Your task to perform on an android device: change keyboard looks Image 0: 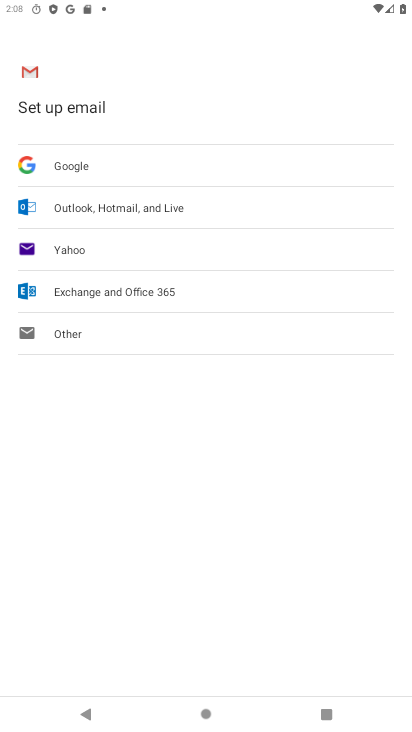
Step 0: drag from (199, 619) to (251, 250)
Your task to perform on an android device: change keyboard looks Image 1: 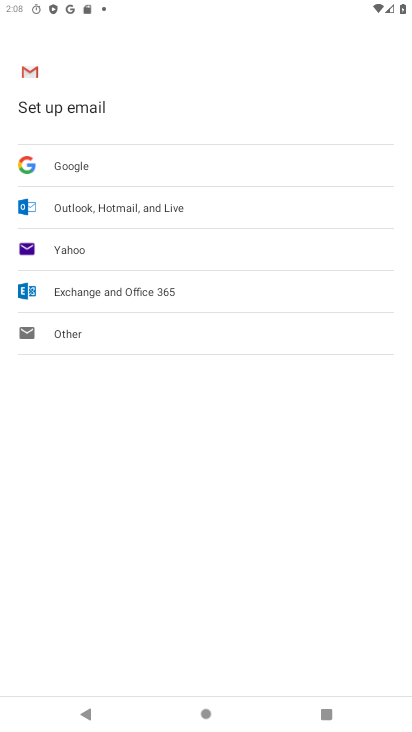
Step 1: drag from (117, 529) to (195, 306)
Your task to perform on an android device: change keyboard looks Image 2: 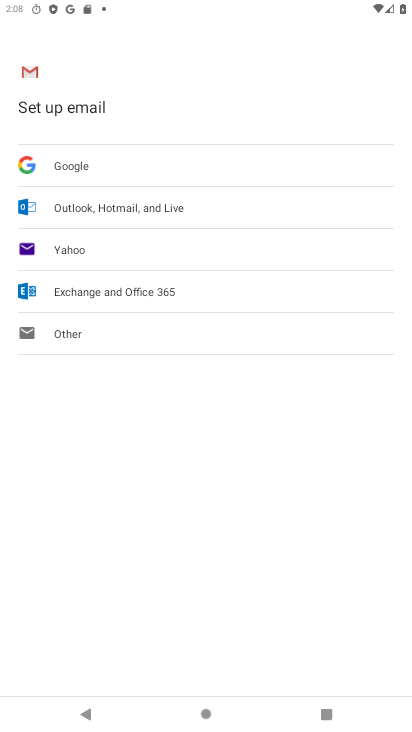
Step 2: press home button
Your task to perform on an android device: change keyboard looks Image 3: 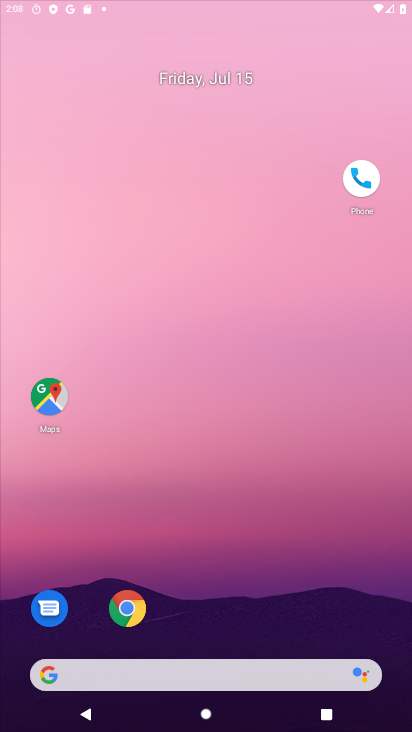
Step 3: drag from (183, 603) to (276, 64)
Your task to perform on an android device: change keyboard looks Image 4: 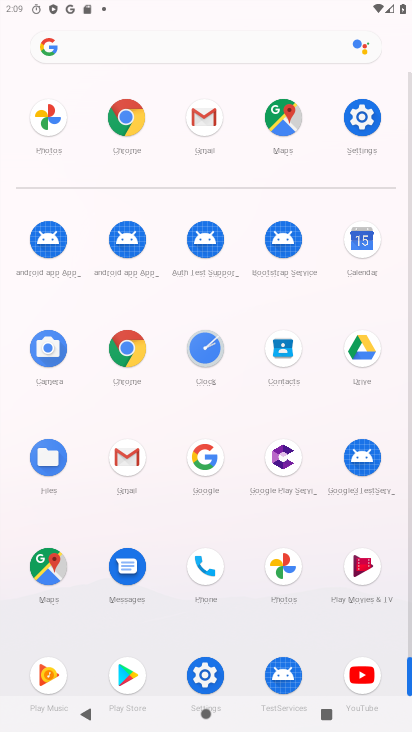
Step 4: click (216, 682)
Your task to perform on an android device: change keyboard looks Image 5: 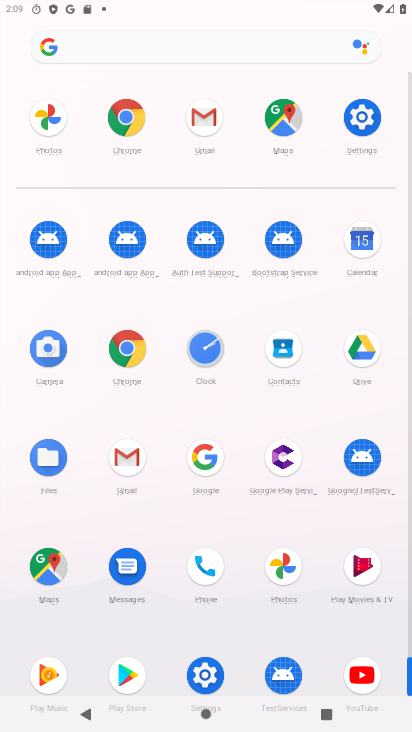
Step 5: click (216, 682)
Your task to perform on an android device: change keyboard looks Image 6: 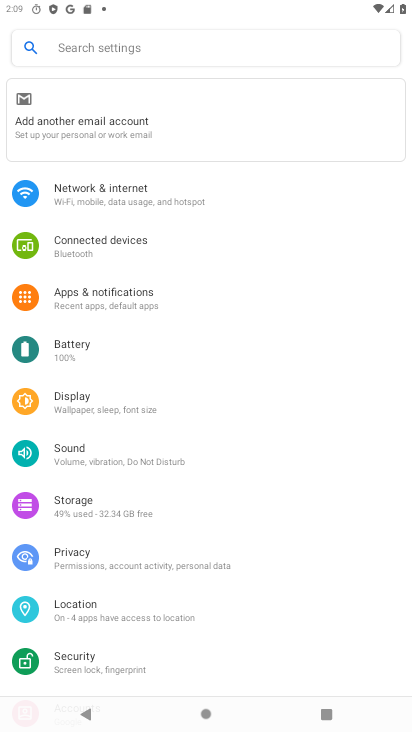
Step 6: drag from (221, 589) to (237, 158)
Your task to perform on an android device: change keyboard looks Image 7: 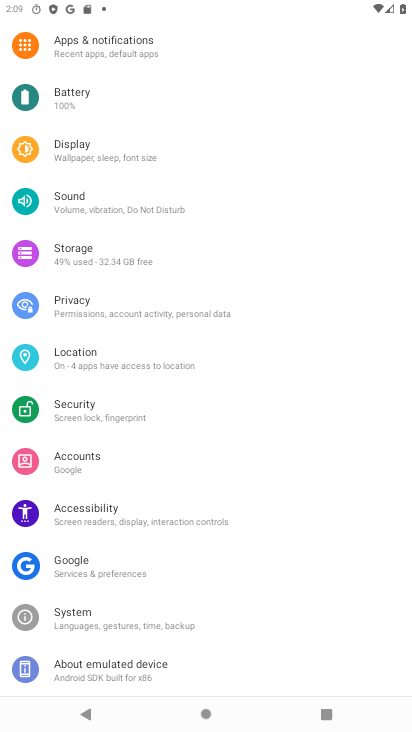
Step 7: click (109, 609)
Your task to perform on an android device: change keyboard looks Image 8: 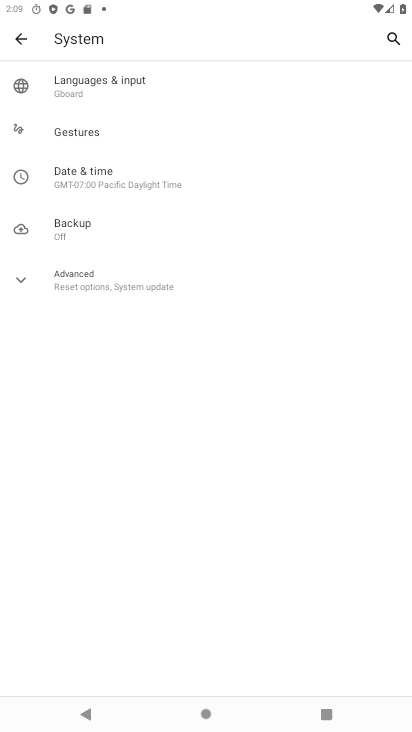
Step 8: click (145, 88)
Your task to perform on an android device: change keyboard looks Image 9: 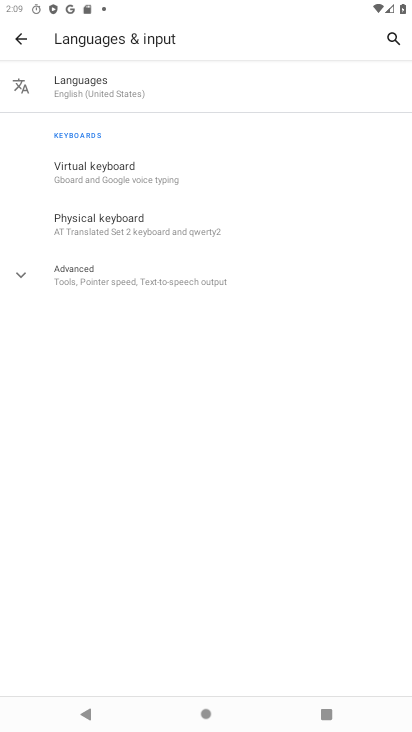
Step 9: click (150, 170)
Your task to perform on an android device: change keyboard looks Image 10: 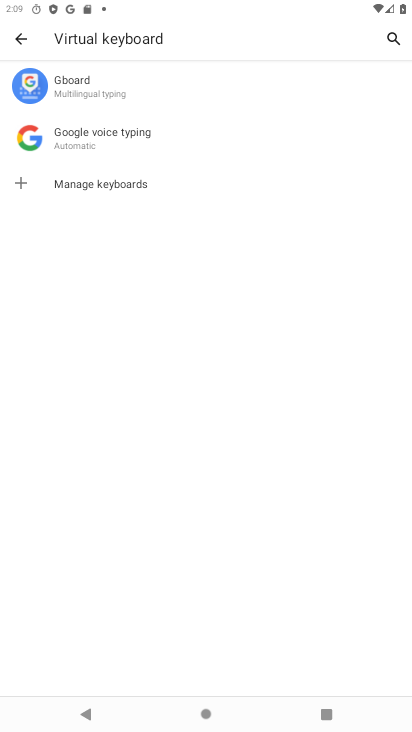
Step 10: click (181, 92)
Your task to perform on an android device: change keyboard looks Image 11: 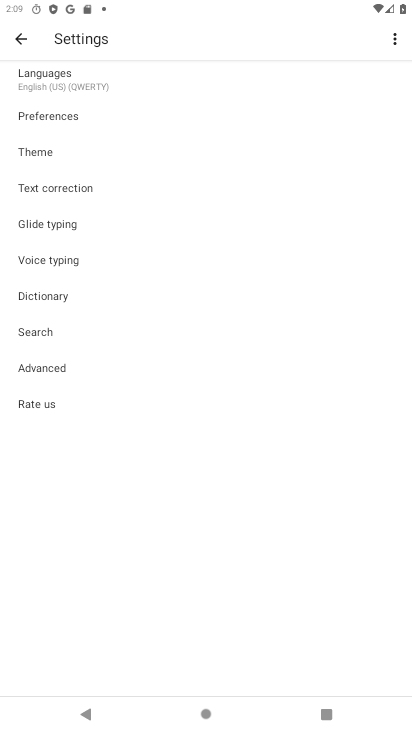
Step 11: click (51, 154)
Your task to perform on an android device: change keyboard looks Image 12: 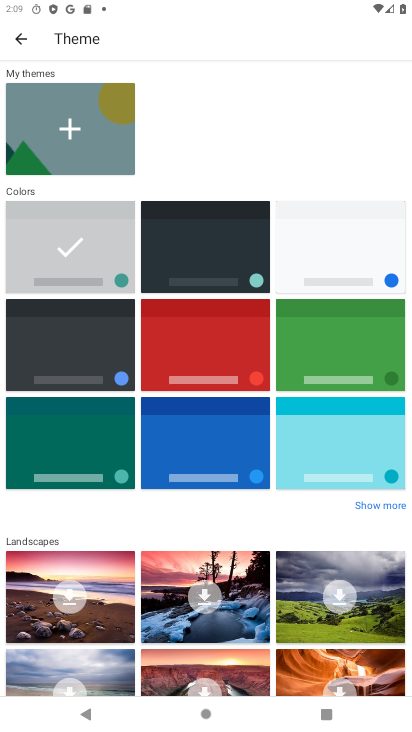
Step 12: click (203, 264)
Your task to perform on an android device: change keyboard looks Image 13: 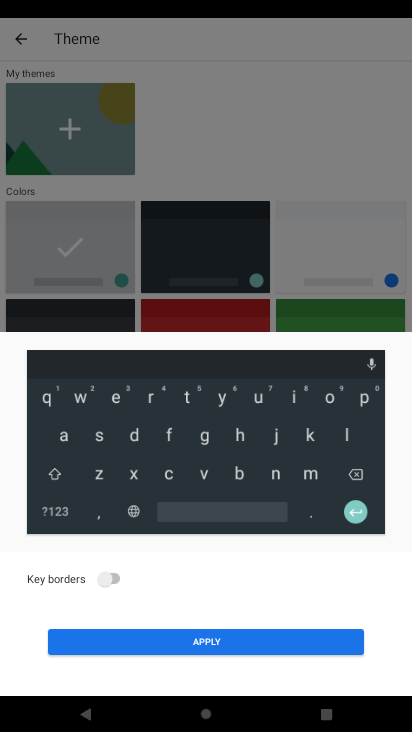
Step 13: click (171, 639)
Your task to perform on an android device: change keyboard looks Image 14: 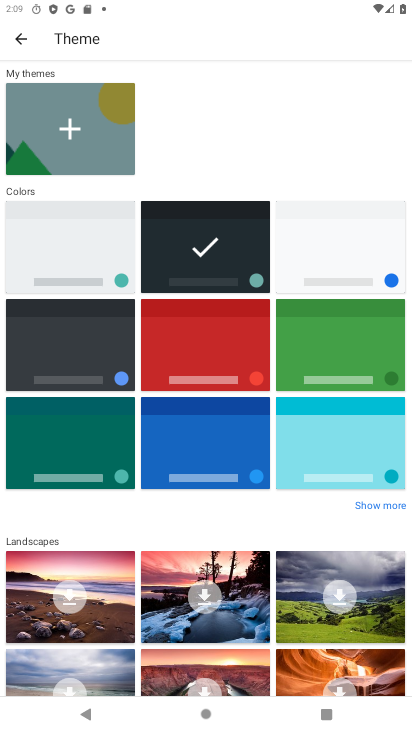
Step 14: task complete